Your task to perform on an android device: open chrome privacy settings Image 0: 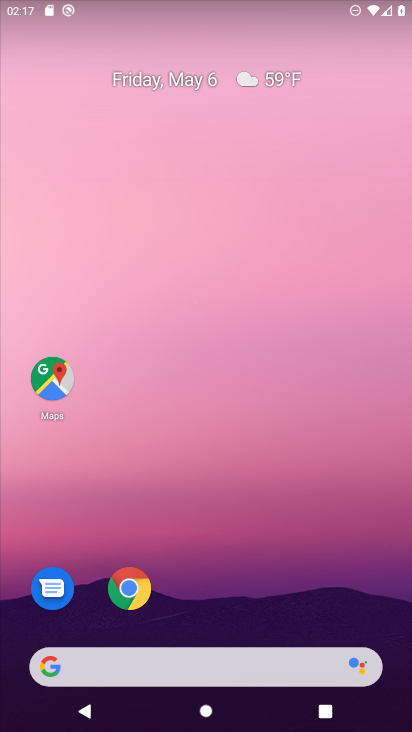
Step 0: click (128, 589)
Your task to perform on an android device: open chrome privacy settings Image 1: 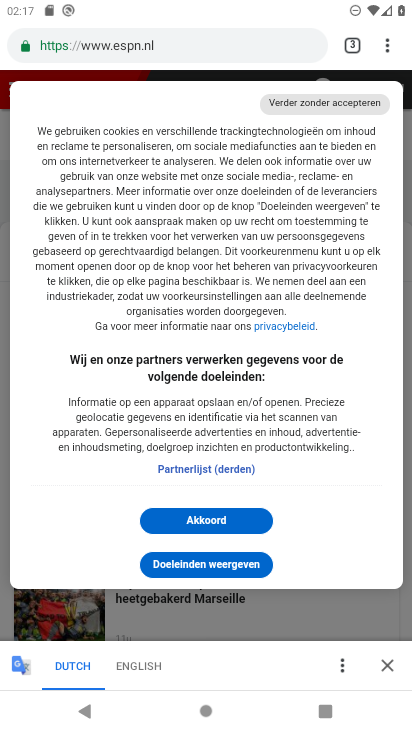
Step 1: click (380, 48)
Your task to perform on an android device: open chrome privacy settings Image 2: 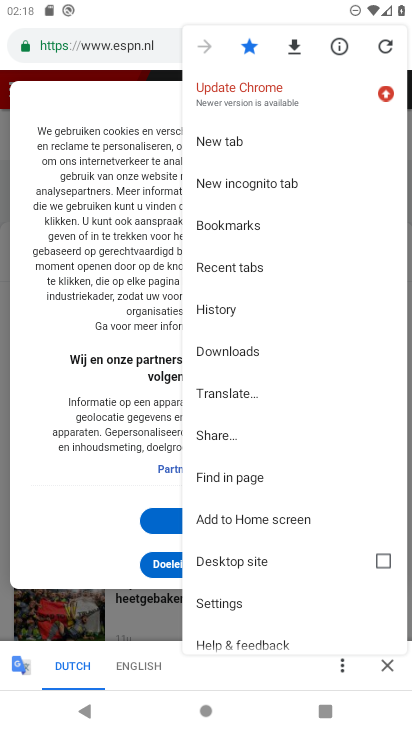
Step 2: click (265, 610)
Your task to perform on an android device: open chrome privacy settings Image 3: 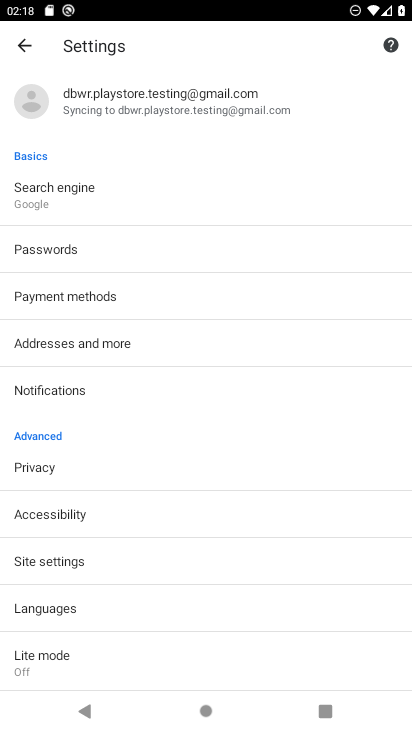
Step 3: click (116, 473)
Your task to perform on an android device: open chrome privacy settings Image 4: 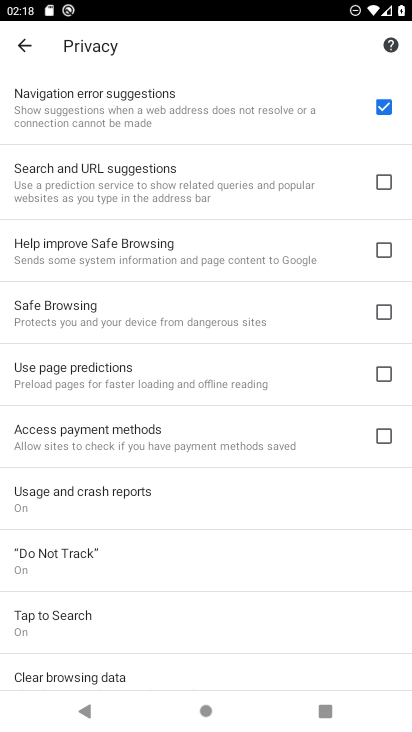
Step 4: task complete